Your task to perform on an android device: When is my next meeting? Image 0: 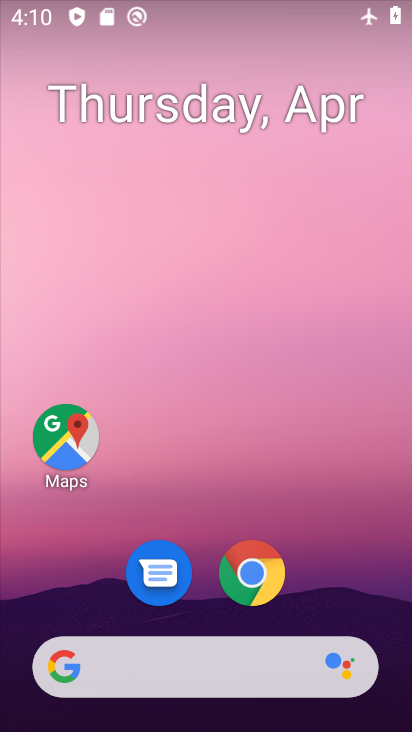
Step 0: drag from (360, 599) to (308, 75)
Your task to perform on an android device: When is my next meeting? Image 1: 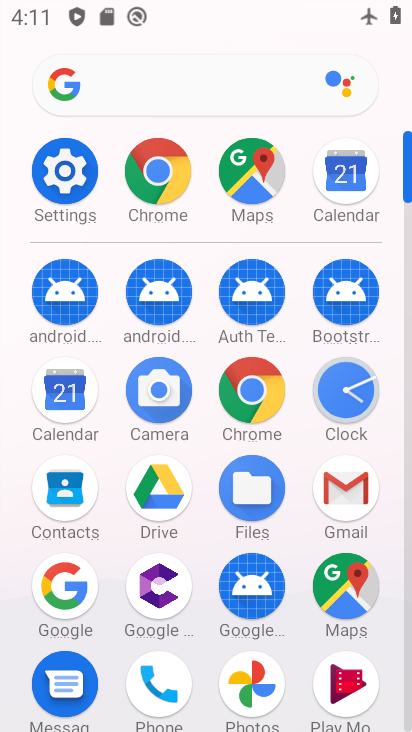
Step 1: click (64, 389)
Your task to perform on an android device: When is my next meeting? Image 2: 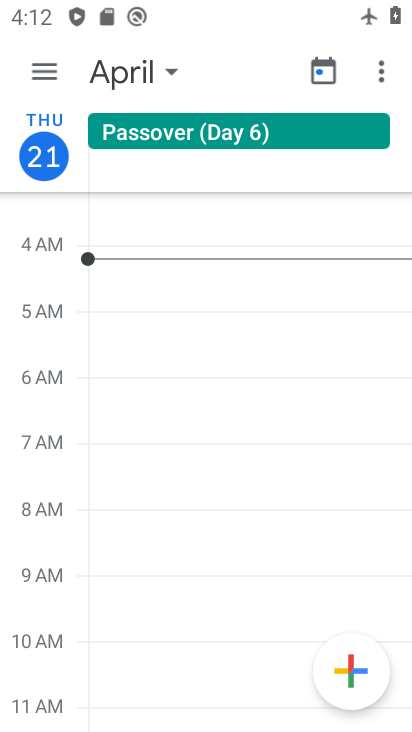
Step 2: task complete